Your task to perform on an android device: Clear the cart on ebay. Add macbook pro 13 inch to the cart on ebay Image 0: 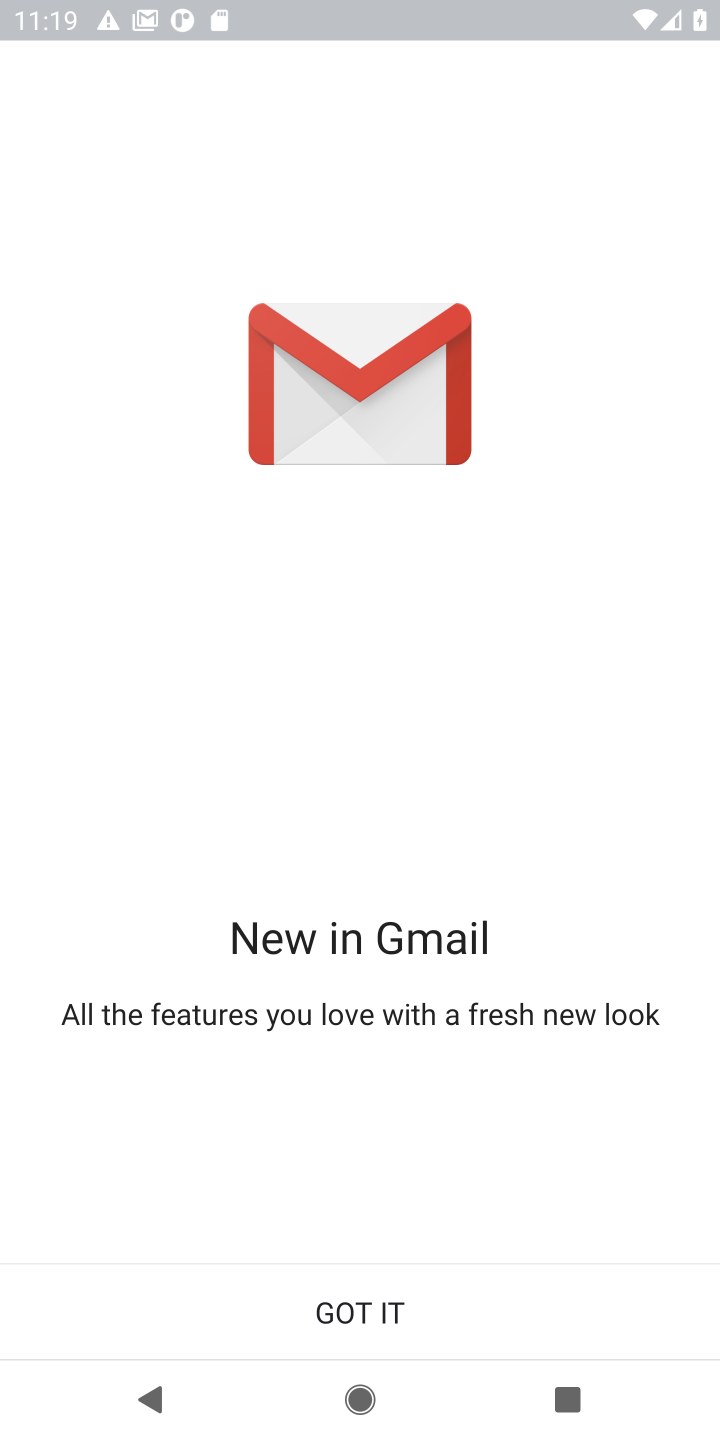
Step 0: press home button
Your task to perform on an android device: Clear the cart on ebay. Add macbook pro 13 inch to the cart on ebay Image 1: 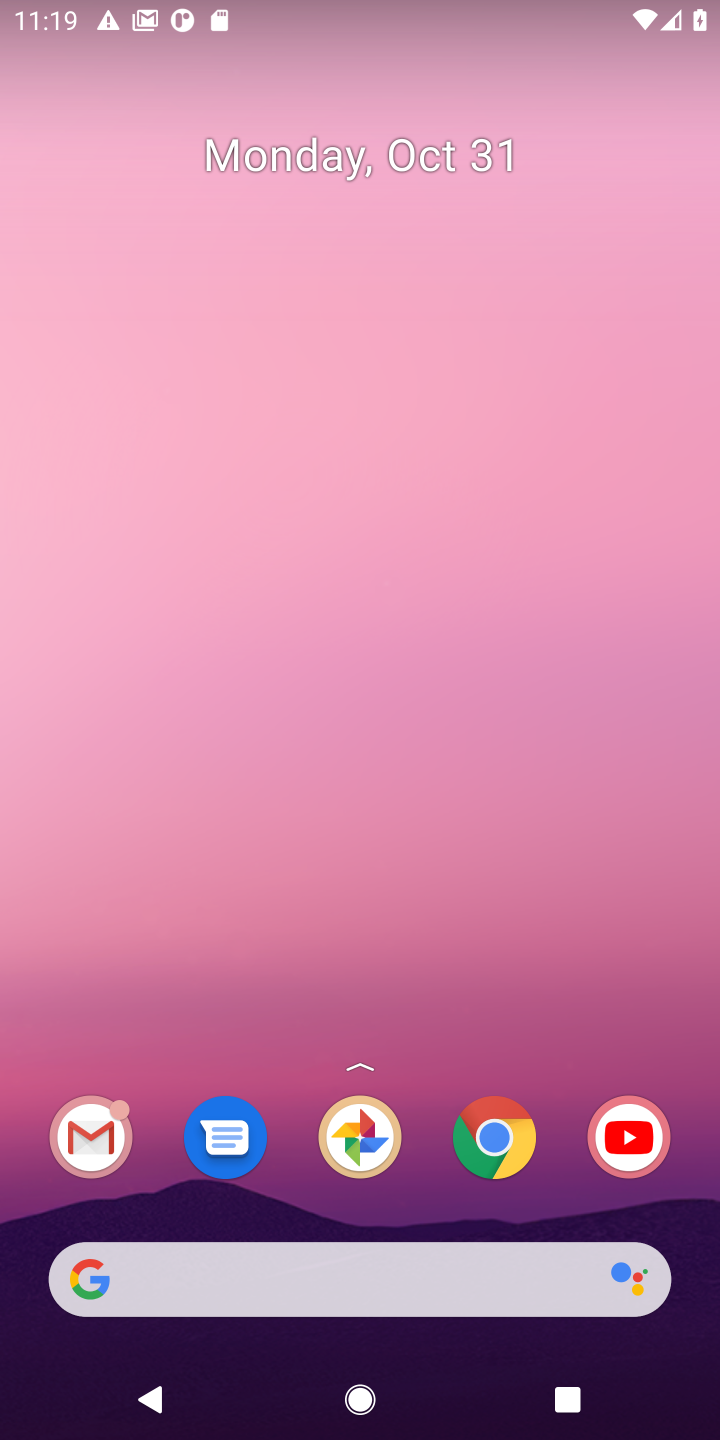
Step 1: drag from (261, 1070) to (318, 646)
Your task to perform on an android device: Clear the cart on ebay. Add macbook pro 13 inch to the cart on ebay Image 2: 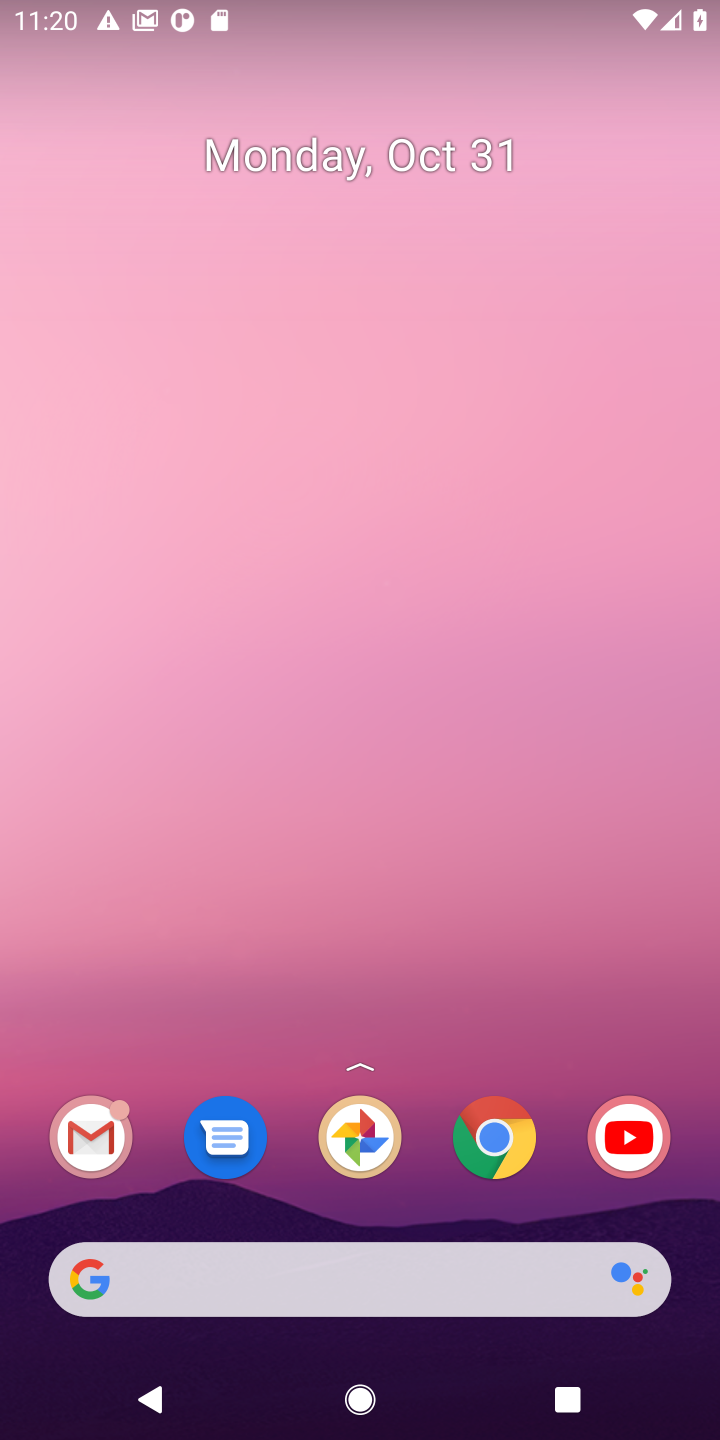
Step 2: drag from (314, 1252) to (348, 187)
Your task to perform on an android device: Clear the cart on ebay. Add macbook pro 13 inch to the cart on ebay Image 3: 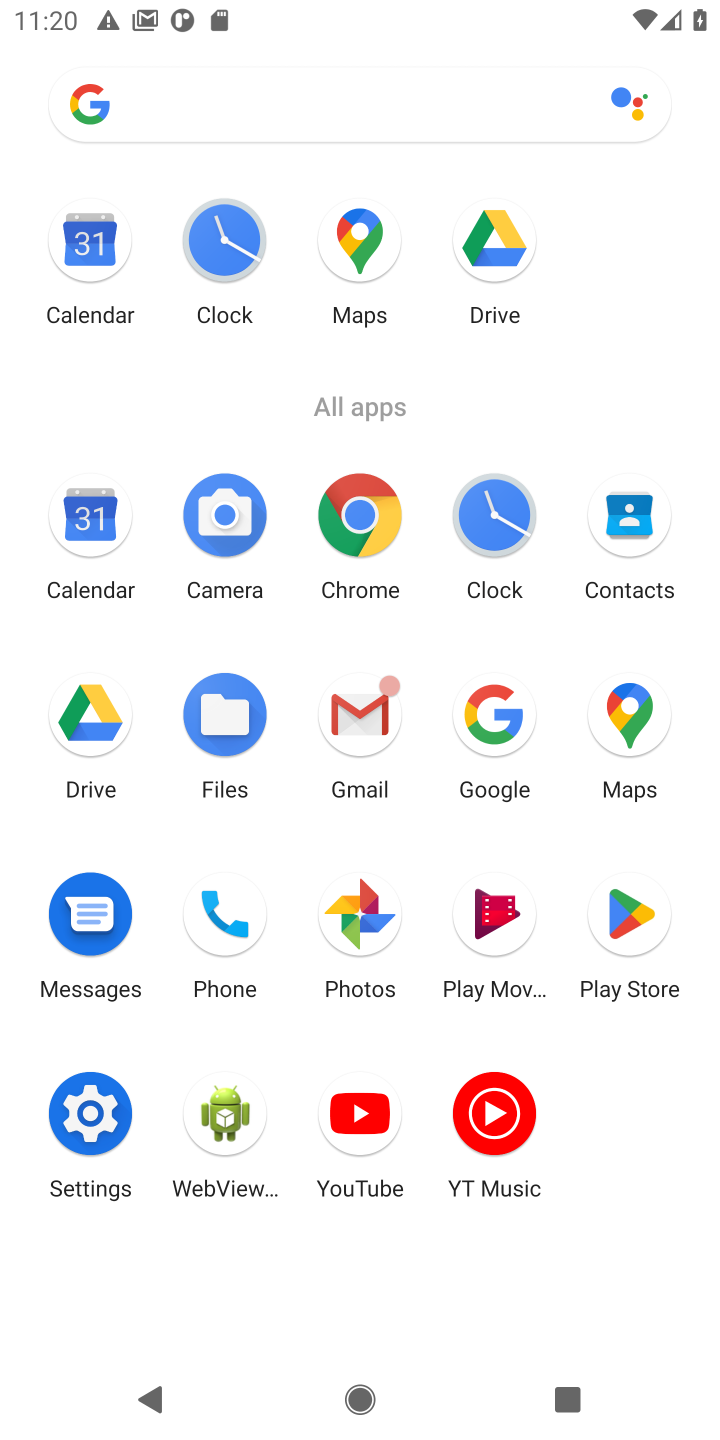
Step 3: click (495, 703)
Your task to perform on an android device: Clear the cart on ebay. Add macbook pro 13 inch to the cart on ebay Image 4: 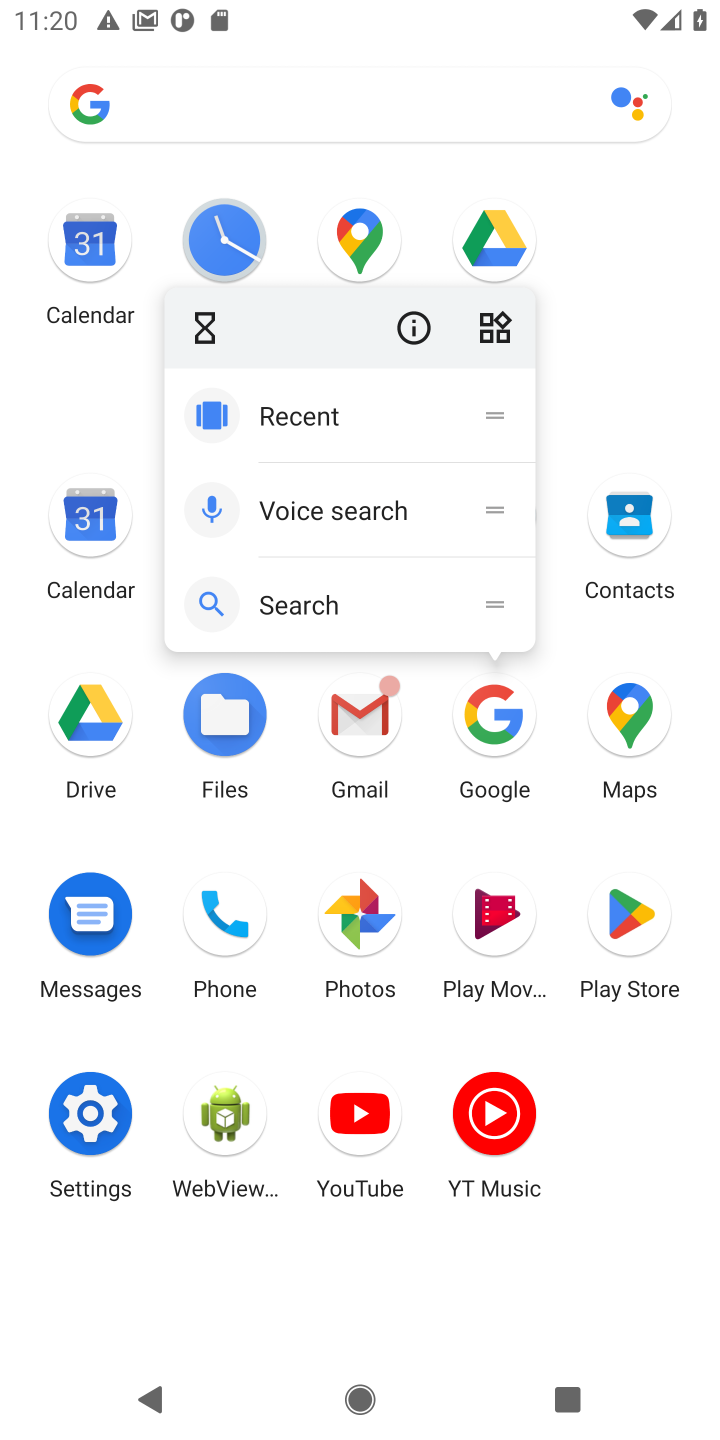
Step 4: click (495, 722)
Your task to perform on an android device: Clear the cart on ebay. Add macbook pro 13 inch to the cart on ebay Image 5: 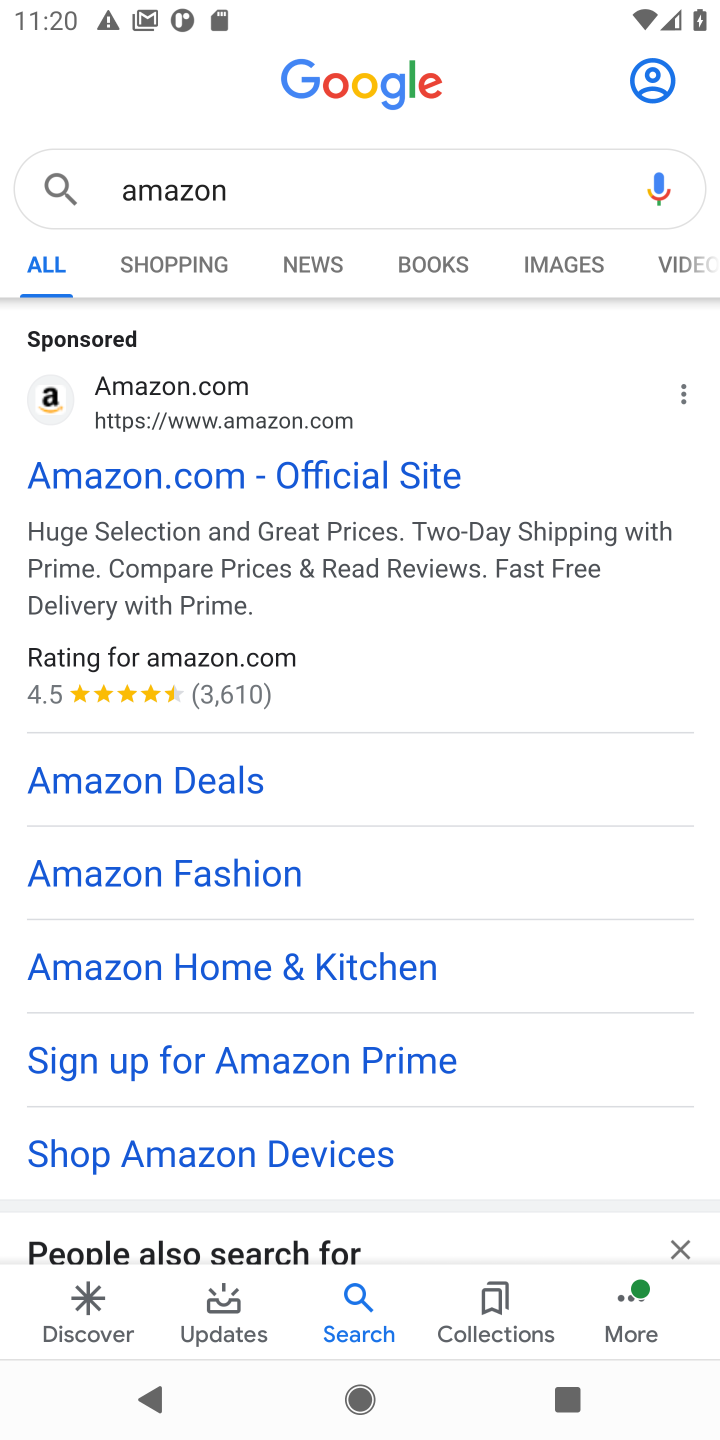
Step 5: click (187, 189)
Your task to perform on an android device: Clear the cart on ebay. Add macbook pro 13 inch to the cart on ebay Image 6: 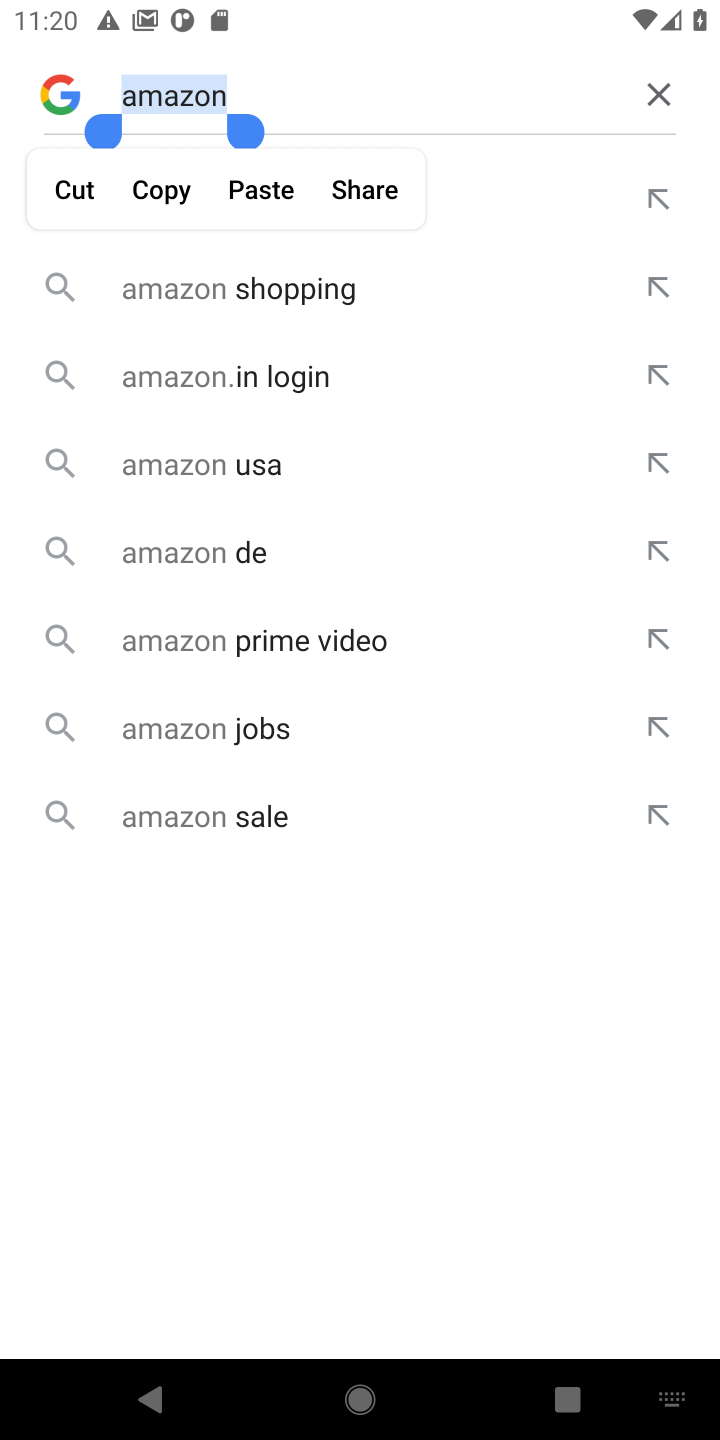
Step 6: click (665, 88)
Your task to perform on an android device: Clear the cart on ebay. Add macbook pro 13 inch to the cart on ebay Image 7: 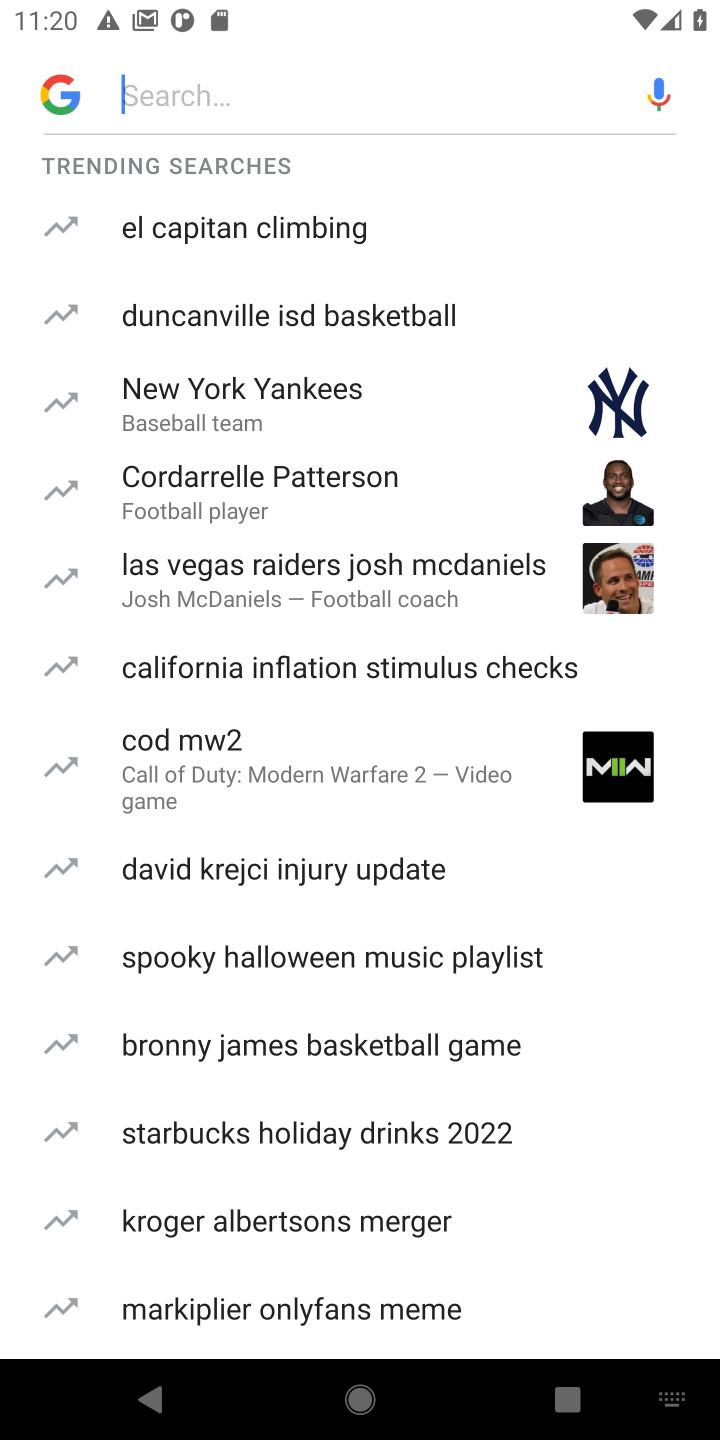
Step 7: type "ebay"
Your task to perform on an android device: Clear the cart on ebay. Add macbook pro 13 inch to the cart on ebay Image 8: 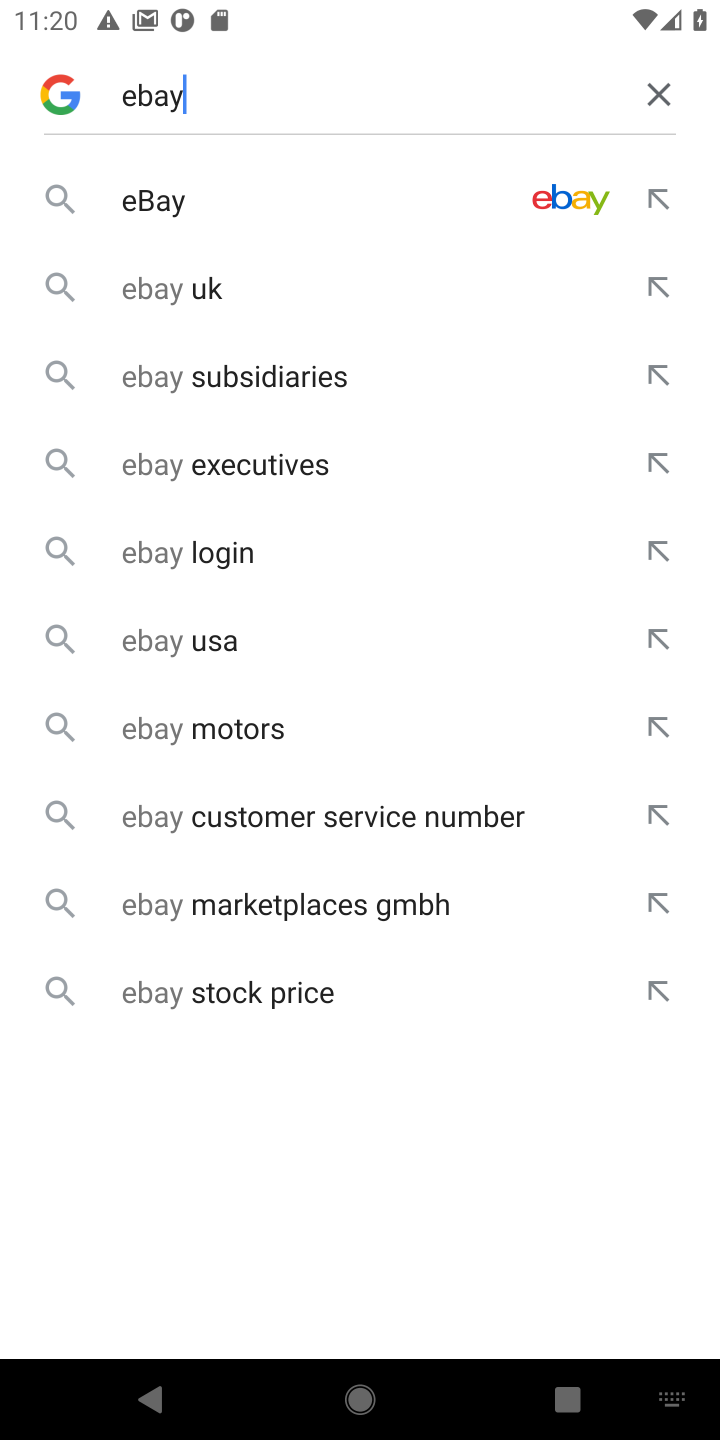
Step 8: click (151, 188)
Your task to perform on an android device: Clear the cart on ebay. Add macbook pro 13 inch to the cart on ebay Image 9: 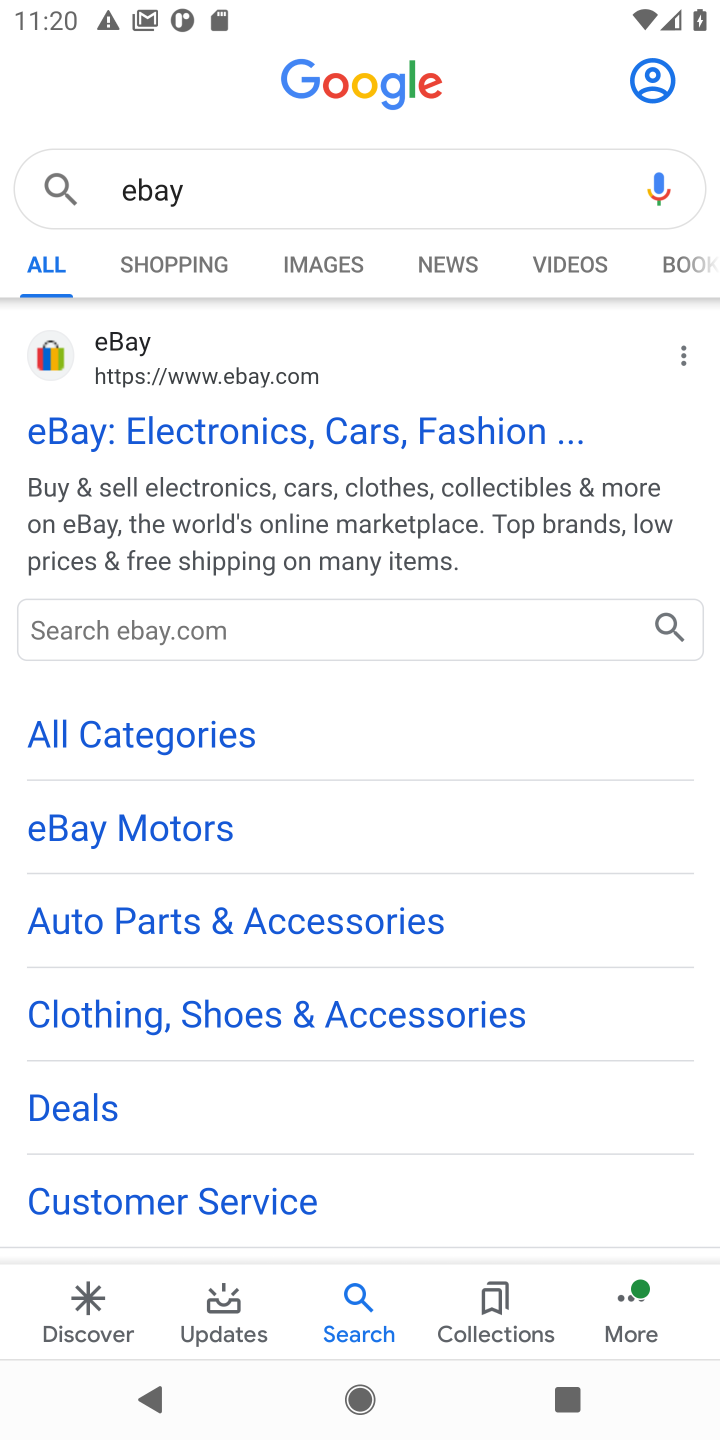
Step 9: click (199, 436)
Your task to perform on an android device: Clear the cart on ebay. Add macbook pro 13 inch to the cart on ebay Image 10: 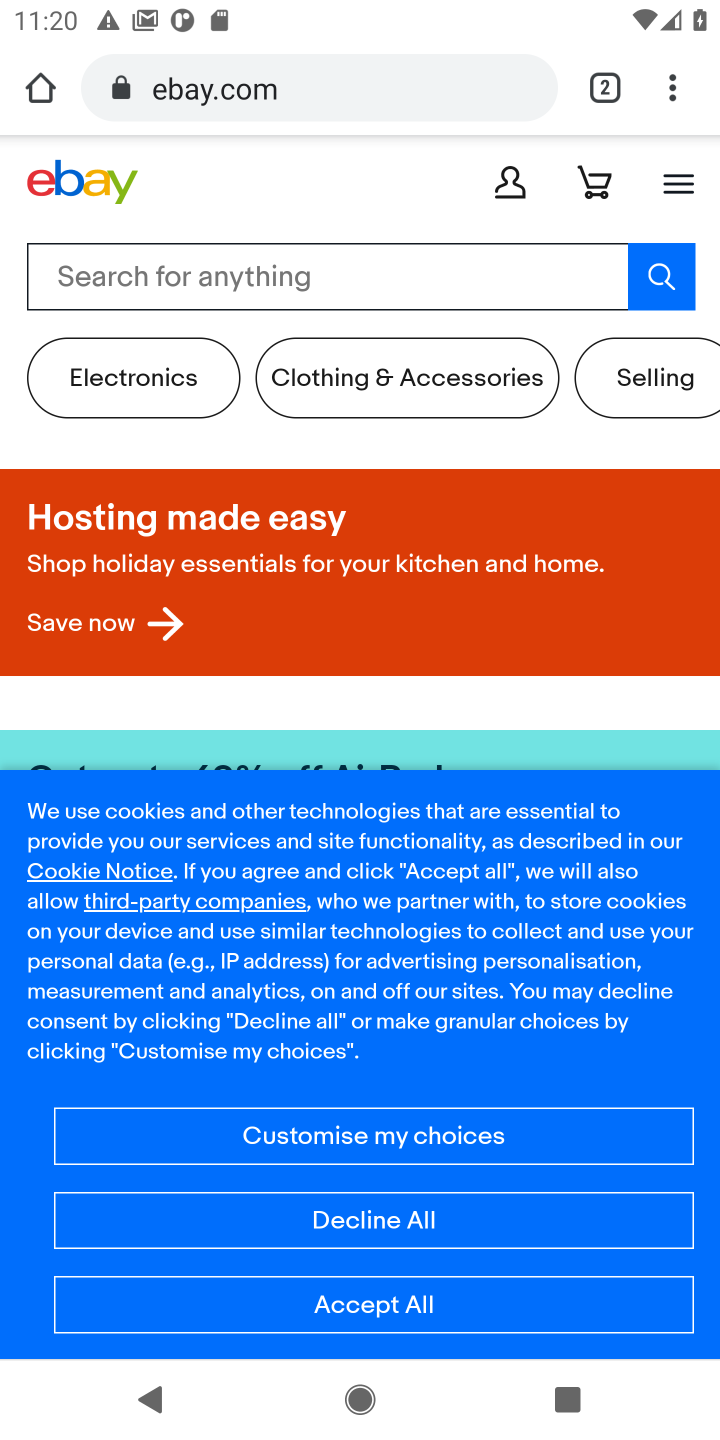
Step 10: click (341, 290)
Your task to perform on an android device: Clear the cart on ebay. Add macbook pro 13 inch to the cart on ebay Image 11: 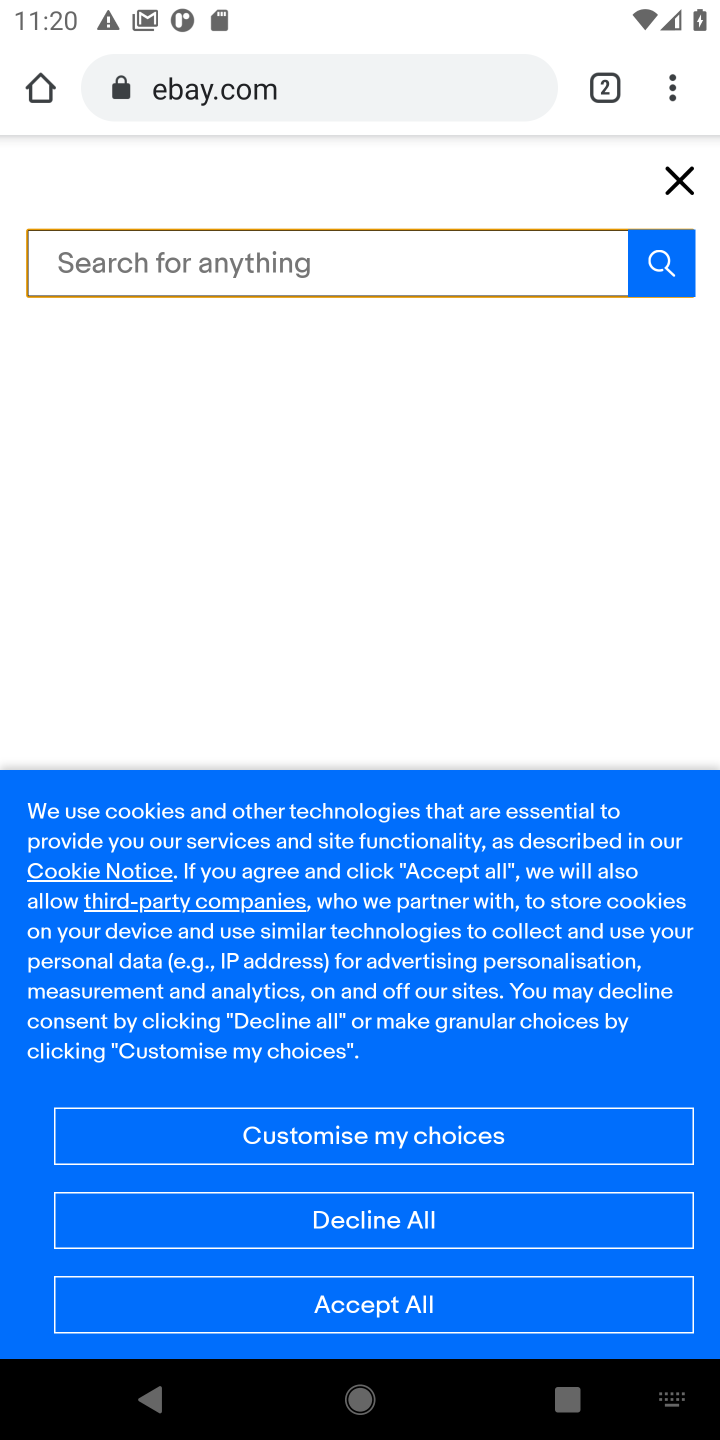
Step 11: type "macbook pro 13 inch"
Your task to perform on an android device: Clear the cart on ebay. Add macbook pro 13 inch to the cart on ebay Image 12: 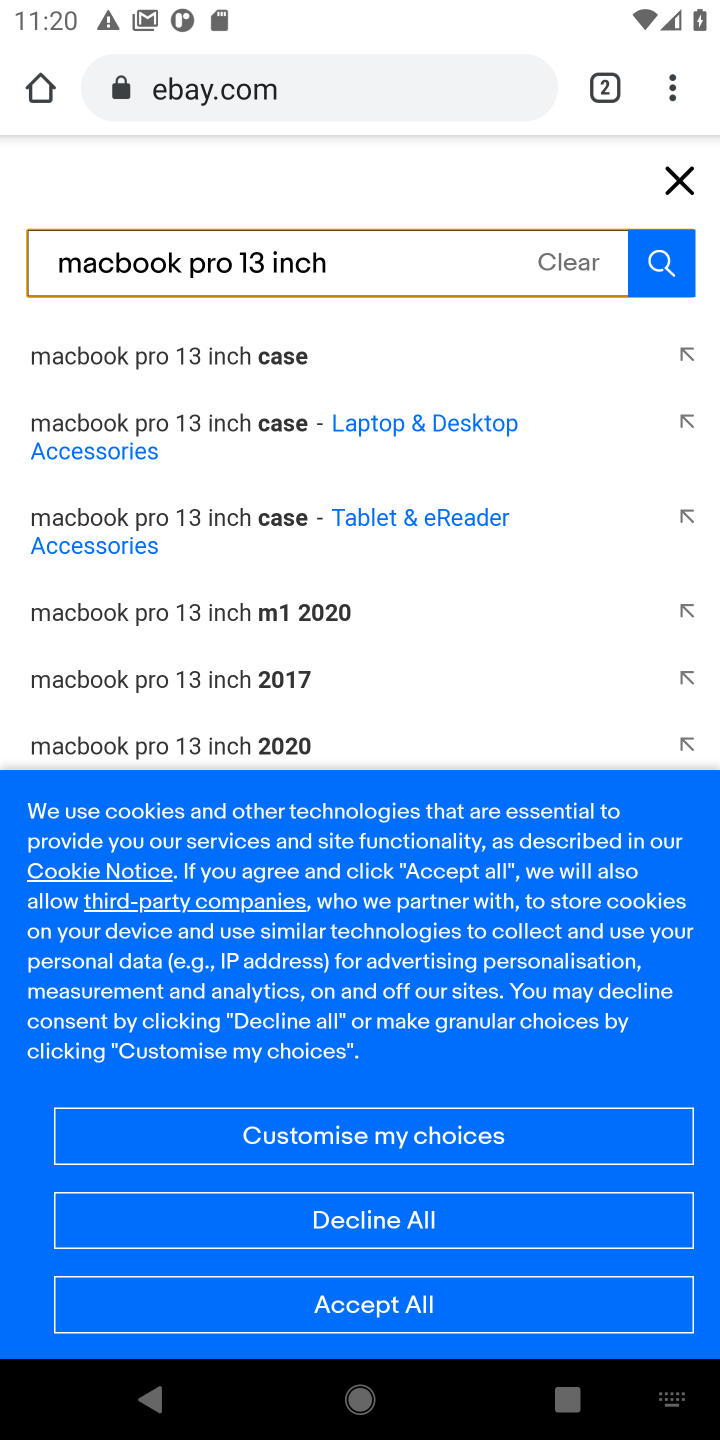
Step 12: click (283, 348)
Your task to perform on an android device: Clear the cart on ebay. Add macbook pro 13 inch to the cart on ebay Image 13: 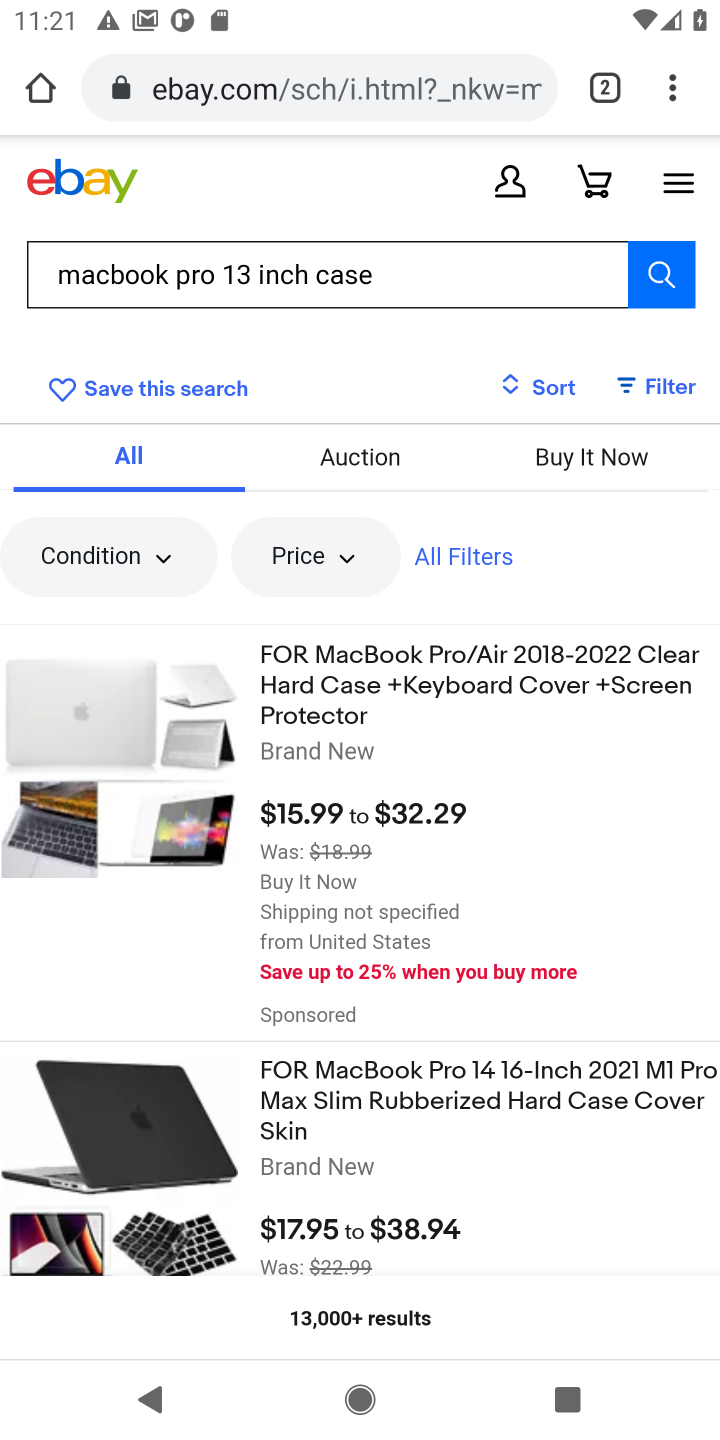
Step 13: click (349, 684)
Your task to perform on an android device: Clear the cart on ebay. Add macbook pro 13 inch to the cart on ebay Image 14: 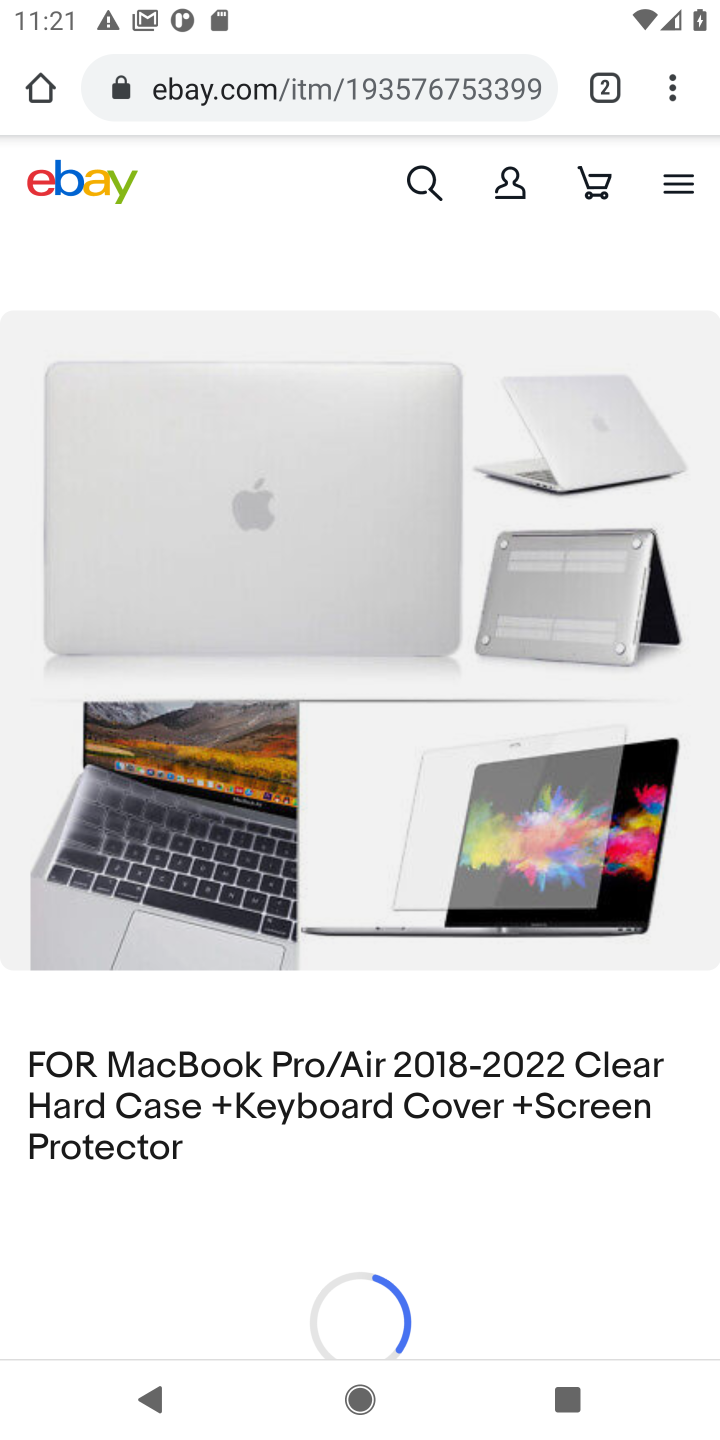
Step 14: drag from (382, 1250) to (413, 622)
Your task to perform on an android device: Clear the cart on ebay. Add macbook pro 13 inch to the cart on ebay Image 15: 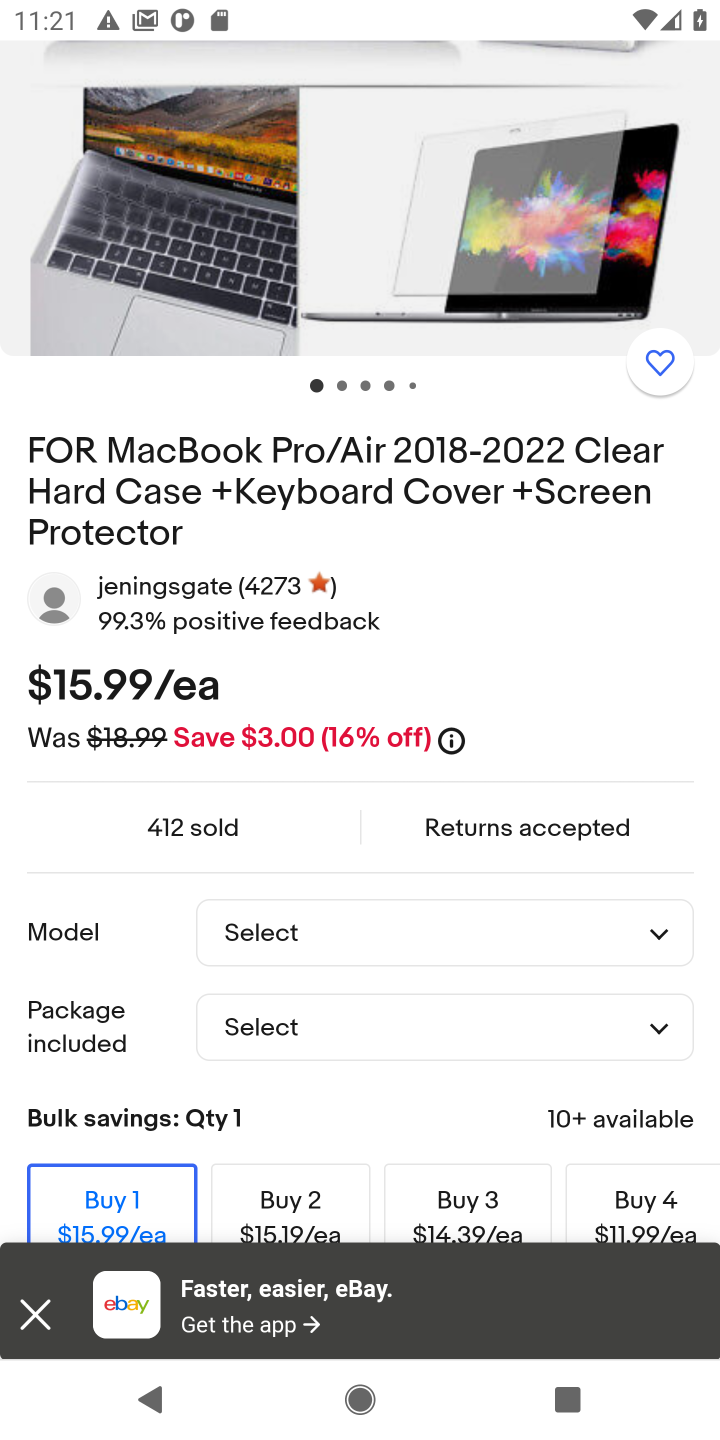
Step 15: drag from (340, 1149) to (340, 597)
Your task to perform on an android device: Clear the cart on ebay. Add macbook pro 13 inch to the cart on ebay Image 16: 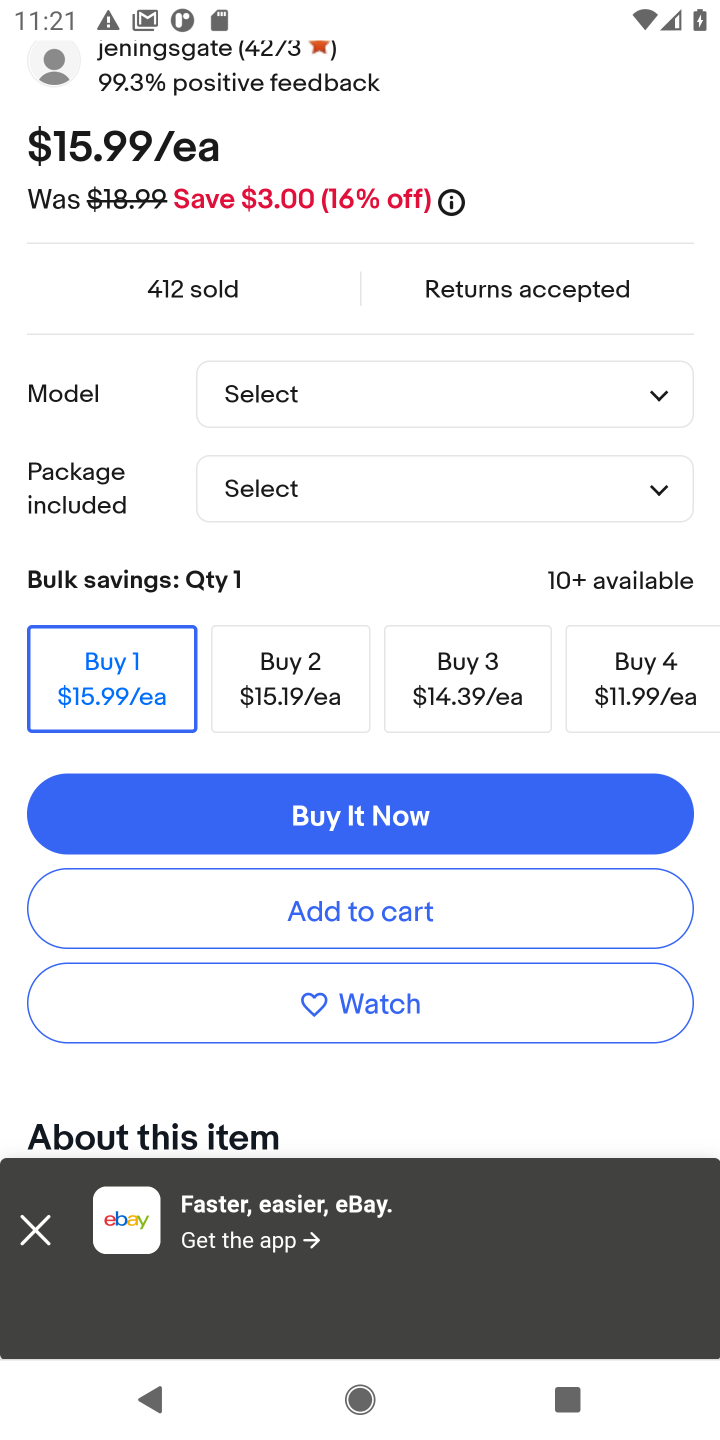
Step 16: click (316, 930)
Your task to perform on an android device: Clear the cart on ebay. Add macbook pro 13 inch to the cart on ebay Image 17: 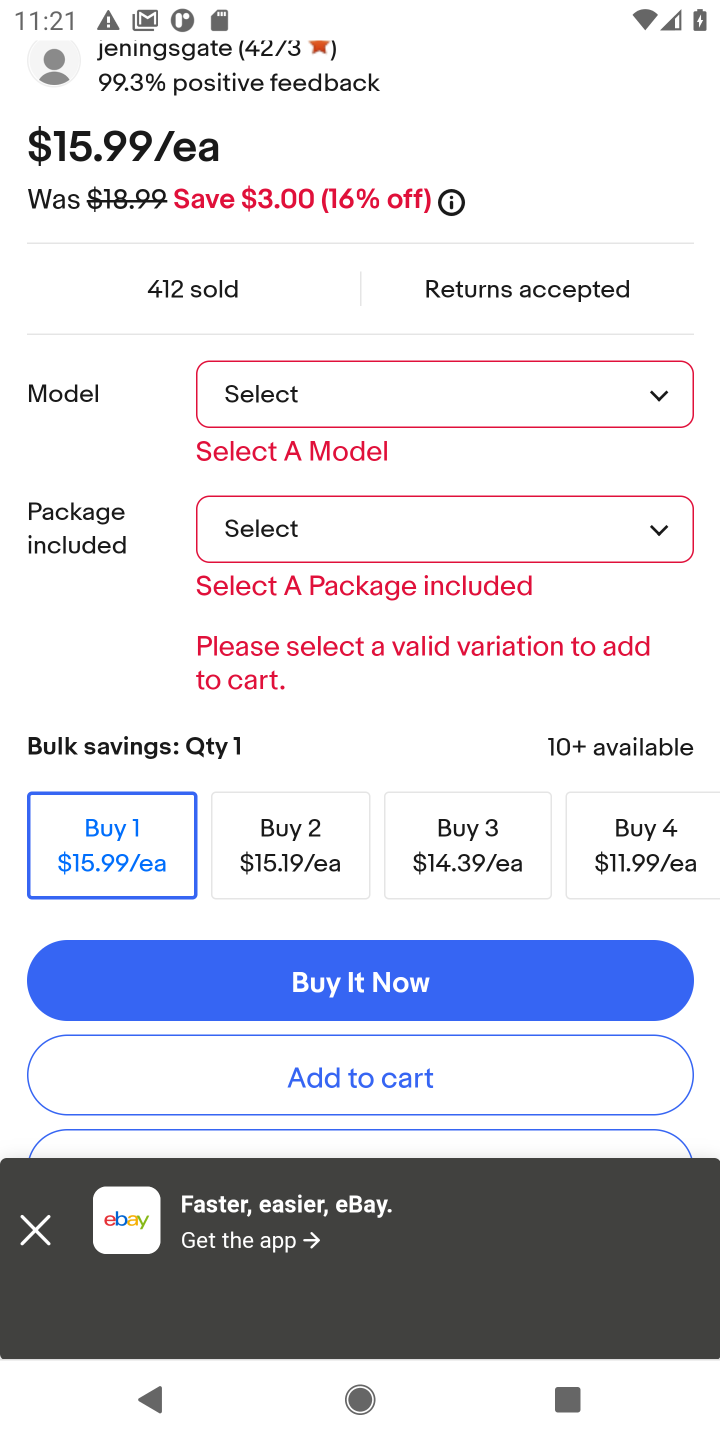
Step 17: task complete